Your task to perform on an android device: turn off picture-in-picture Image 0: 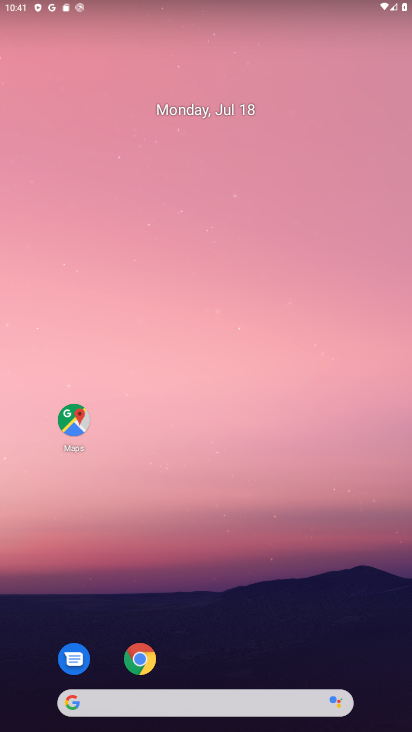
Step 0: press home button
Your task to perform on an android device: turn off picture-in-picture Image 1: 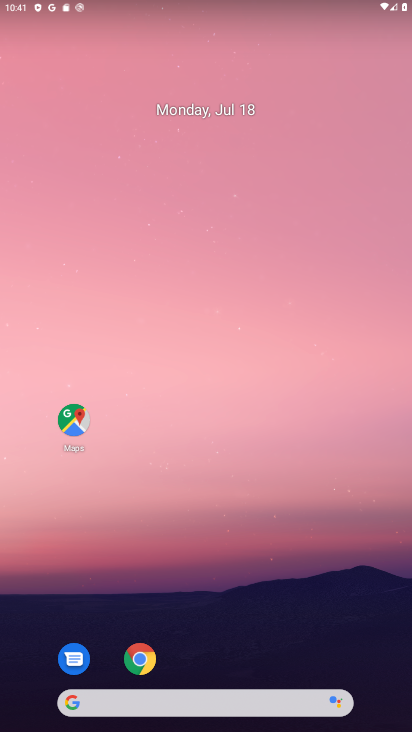
Step 1: click (139, 660)
Your task to perform on an android device: turn off picture-in-picture Image 2: 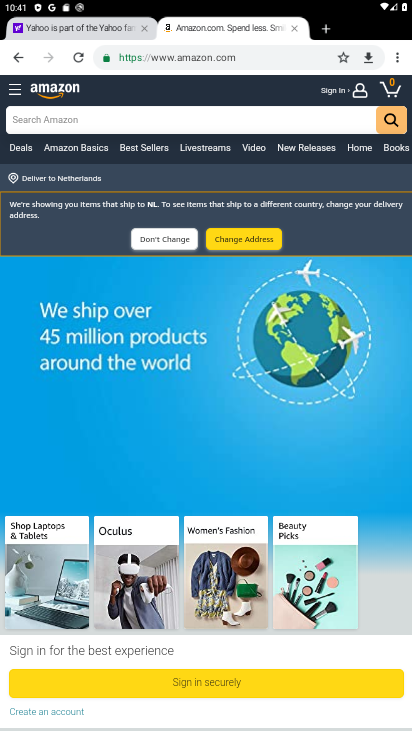
Step 2: press home button
Your task to perform on an android device: turn off picture-in-picture Image 3: 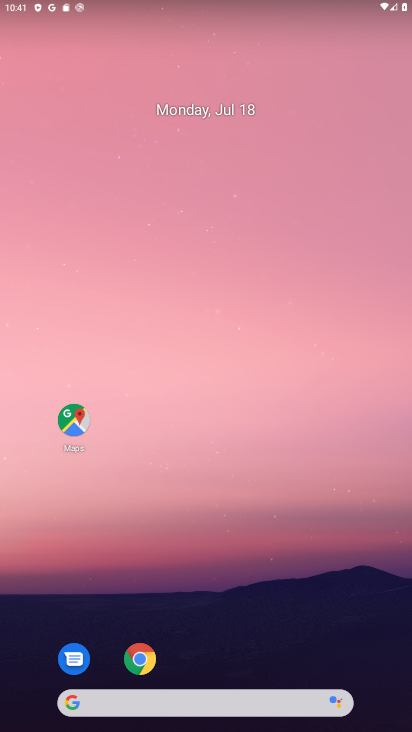
Step 3: click (139, 663)
Your task to perform on an android device: turn off picture-in-picture Image 4: 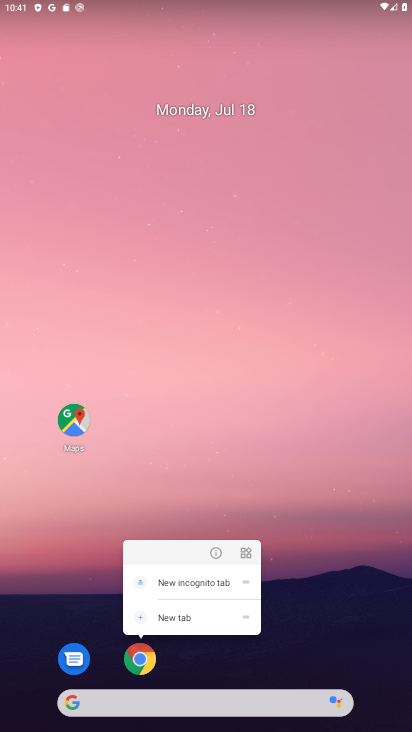
Step 4: click (213, 546)
Your task to perform on an android device: turn off picture-in-picture Image 5: 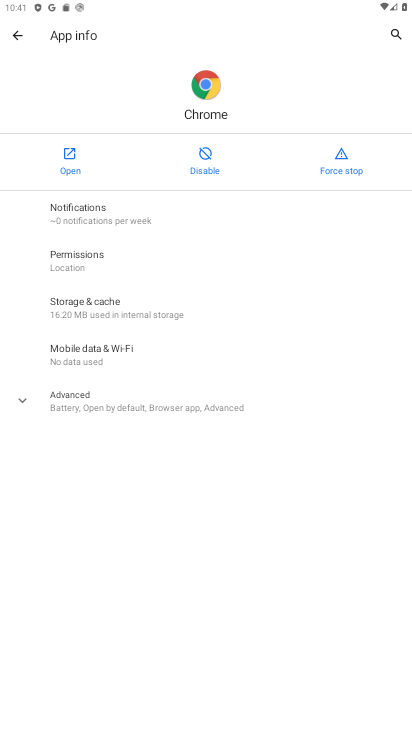
Step 5: click (98, 399)
Your task to perform on an android device: turn off picture-in-picture Image 6: 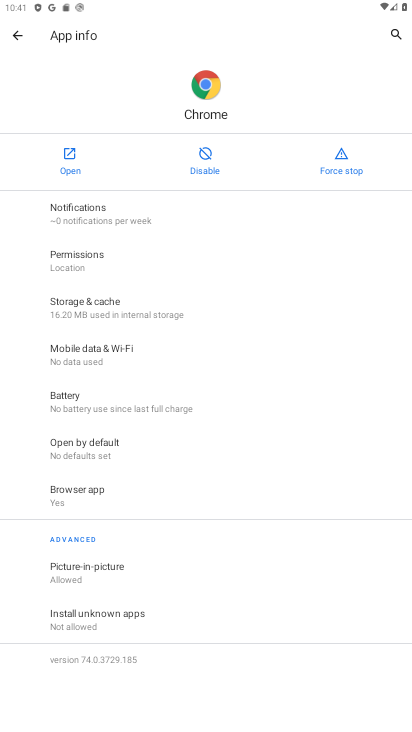
Step 6: click (131, 575)
Your task to perform on an android device: turn off picture-in-picture Image 7: 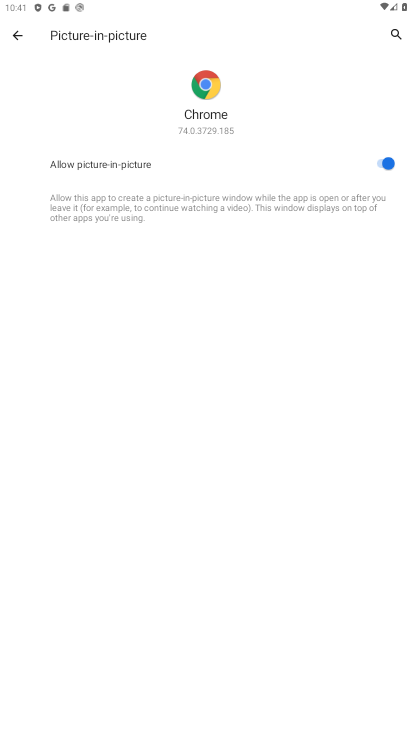
Step 7: click (171, 167)
Your task to perform on an android device: turn off picture-in-picture Image 8: 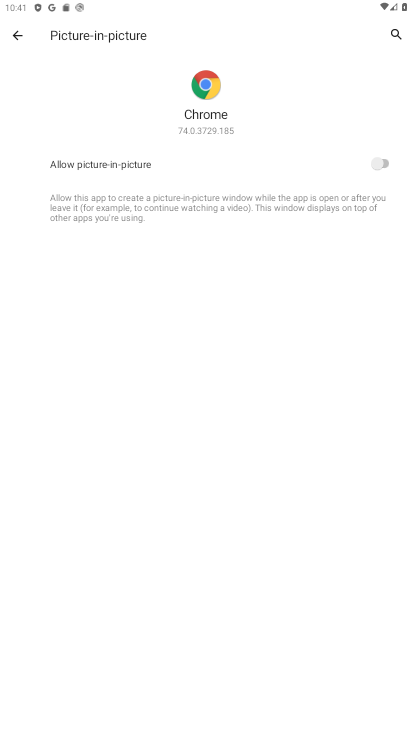
Step 8: task complete